Your task to perform on an android device: open device folders in google photos Image 0: 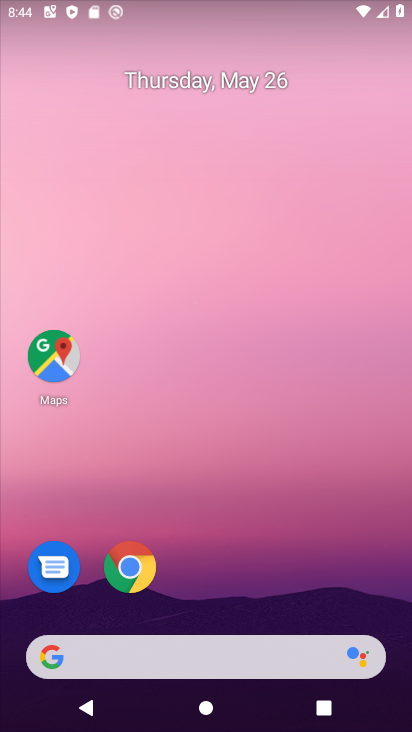
Step 0: drag from (221, 679) to (350, 132)
Your task to perform on an android device: open device folders in google photos Image 1: 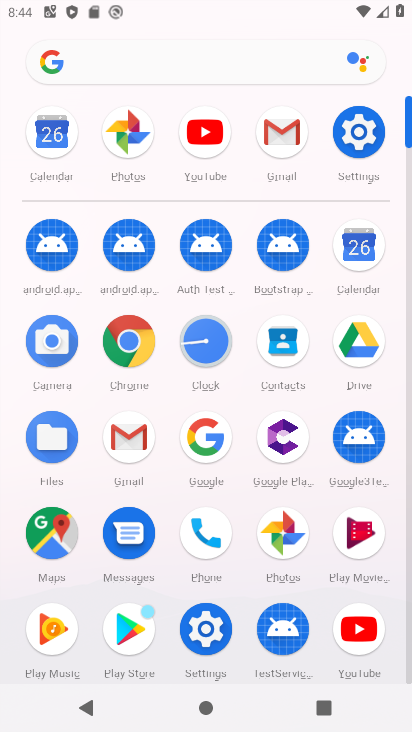
Step 1: click (281, 545)
Your task to perform on an android device: open device folders in google photos Image 2: 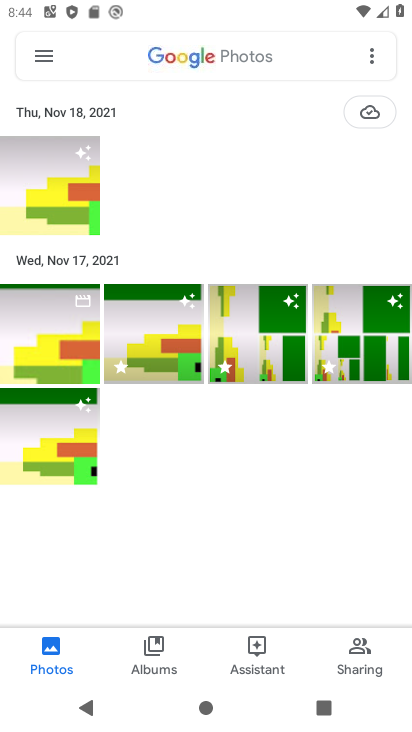
Step 2: click (46, 59)
Your task to perform on an android device: open device folders in google photos Image 3: 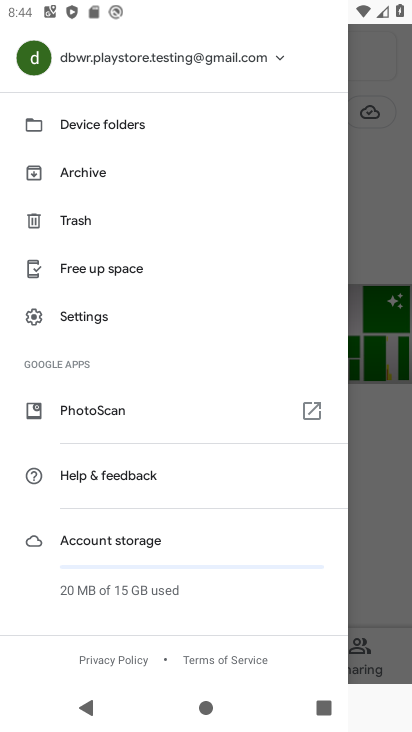
Step 3: click (92, 128)
Your task to perform on an android device: open device folders in google photos Image 4: 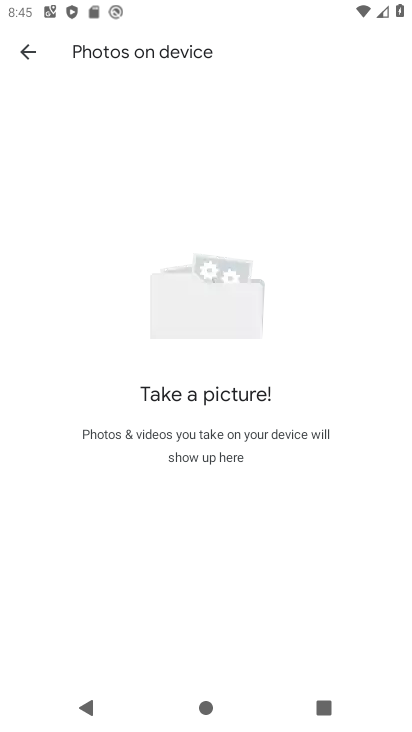
Step 4: task complete